Your task to perform on an android device: Open the web browser Image 0: 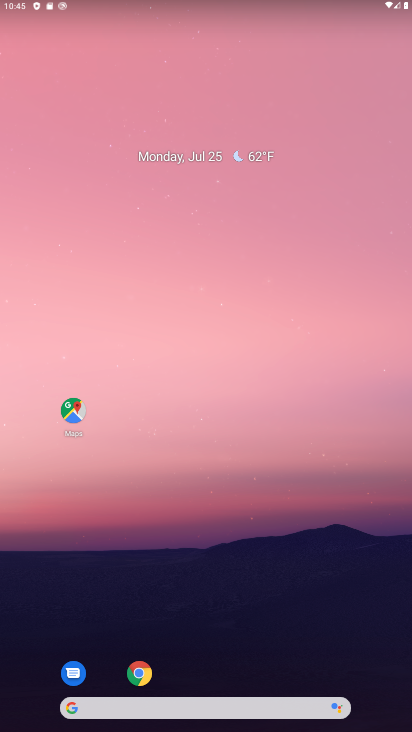
Step 0: click (145, 671)
Your task to perform on an android device: Open the web browser Image 1: 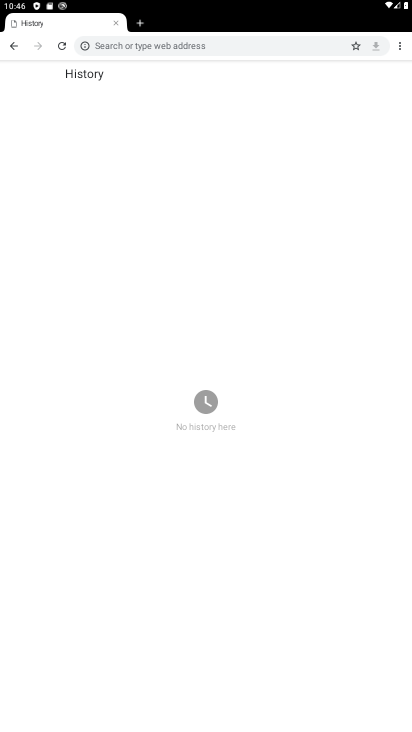
Step 1: task complete